Your task to perform on an android device: Go to Android settings Image 0: 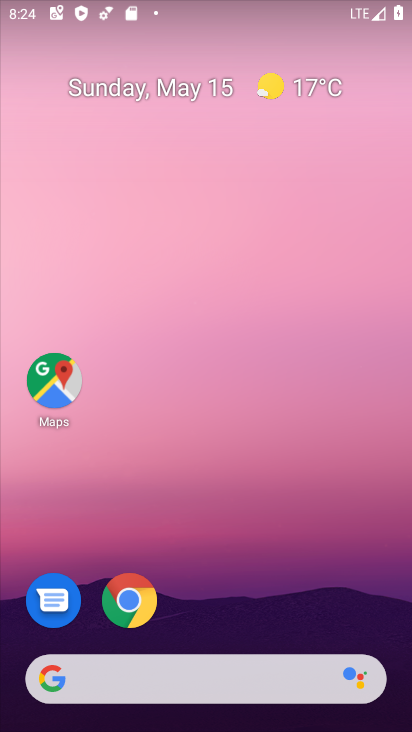
Step 0: drag from (231, 585) to (177, 69)
Your task to perform on an android device: Go to Android settings Image 1: 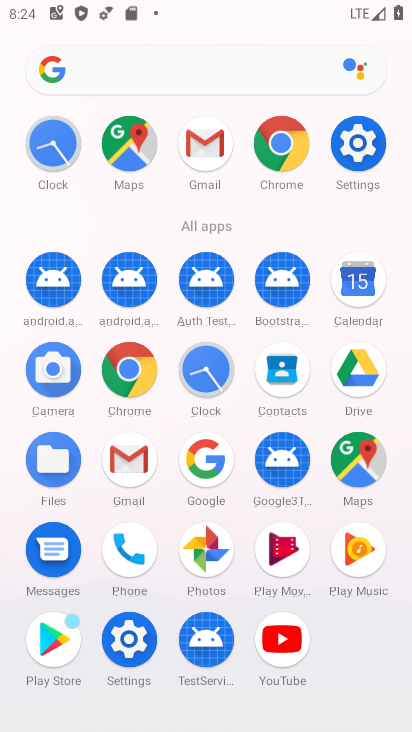
Step 1: click (356, 142)
Your task to perform on an android device: Go to Android settings Image 2: 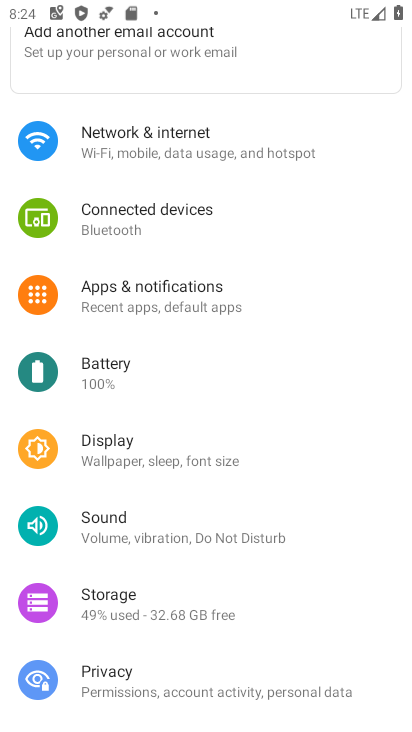
Step 2: task complete